Your task to perform on an android device: Open Chrome and go to settings Image 0: 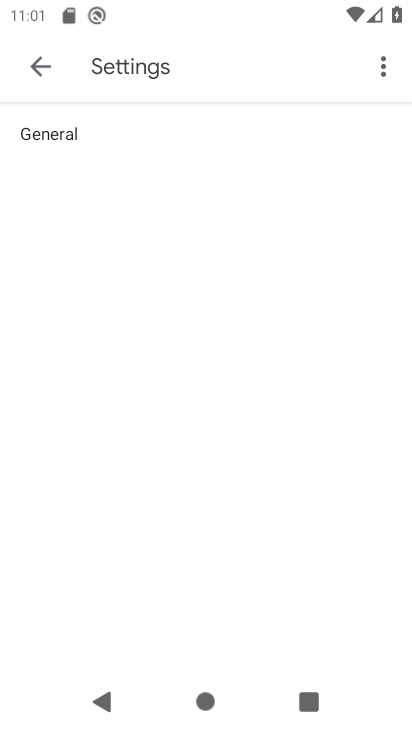
Step 0: press home button
Your task to perform on an android device: Open Chrome and go to settings Image 1: 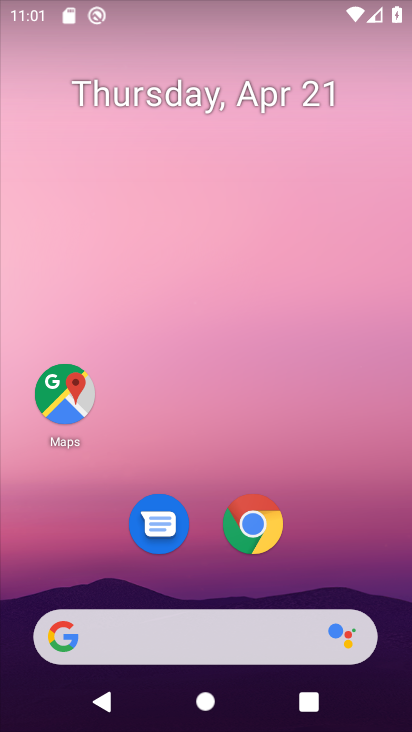
Step 1: click (249, 535)
Your task to perform on an android device: Open Chrome and go to settings Image 2: 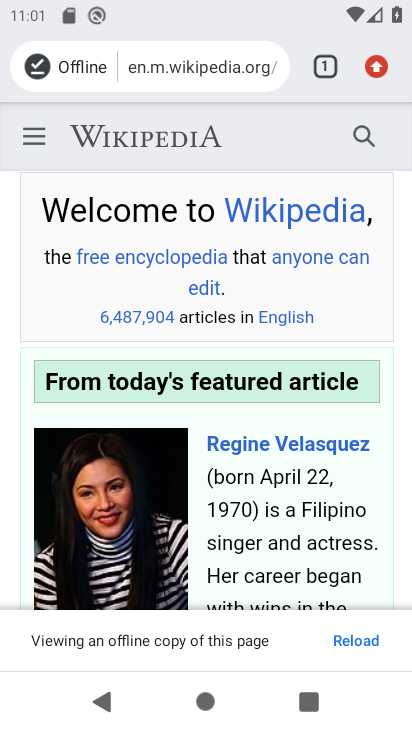
Step 2: task complete